Your task to perform on an android device: manage bookmarks in the chrome app Image 0: 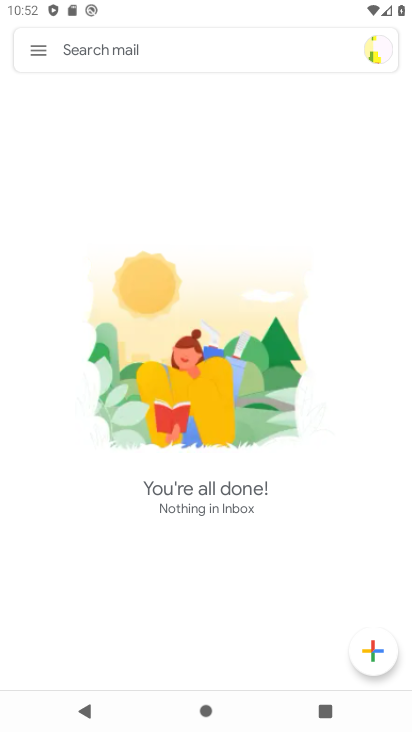
Step 0: press home button
Your task to perform on an android device: manage bookmarks in the chrome app Image 1: 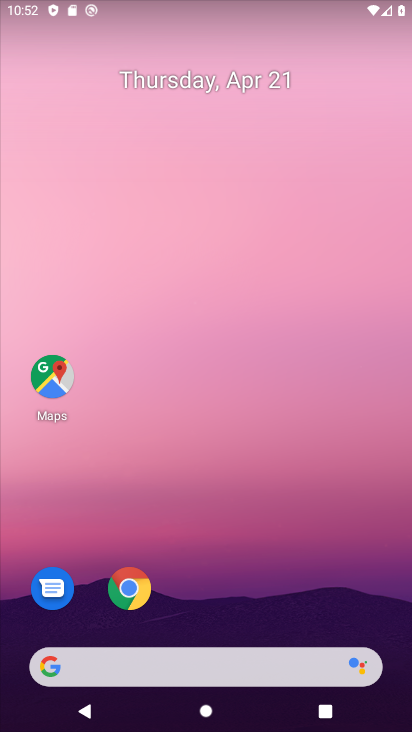
Step 1: click (142, 582)
Your task to perform on an android device: manage bookmarks in the chrome app Image 2: 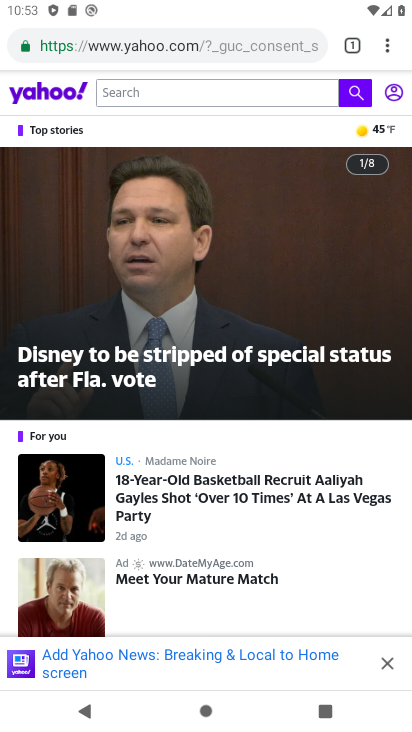
Step 2: press home button
Your task to perform on an android device: manage bookmarks in the chrome app Image 3: 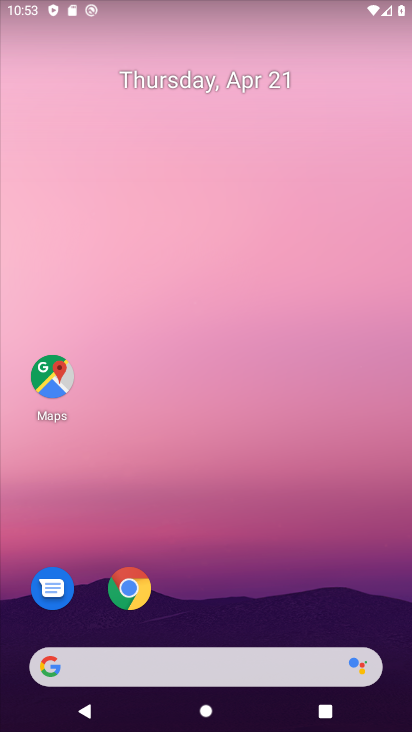
Step 3: click (141, 583)
Your task to perform on an android device: manage bookmarks in the chrome app Image 4: 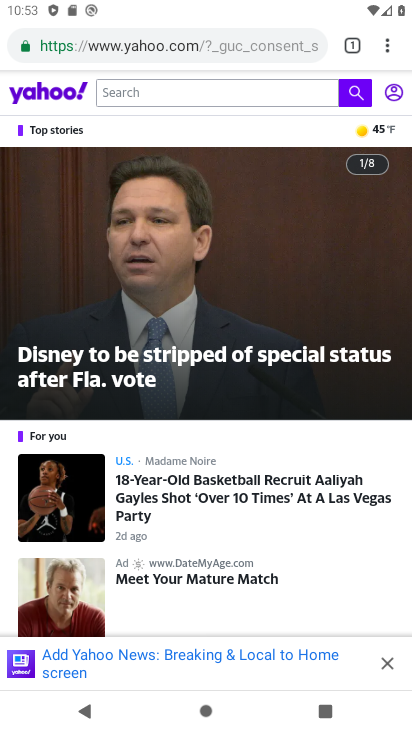
Step 4: task complete